Your task to perform on an android device: turn on improve location accuracy Image 0: 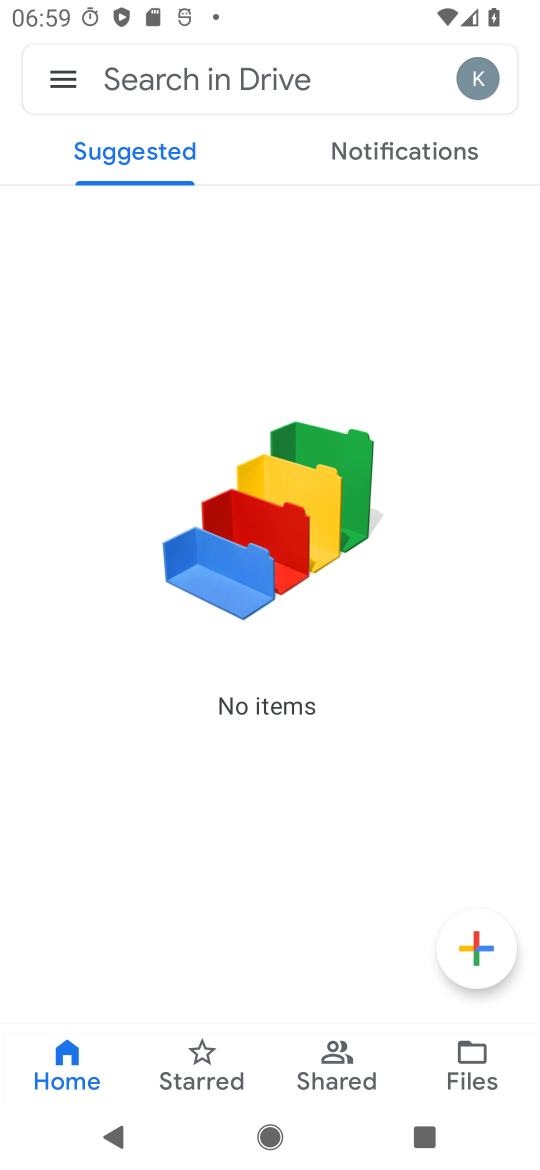
Step 0: press home button
Your task to perform on an android device: turn on improve location accuracy Image 1: 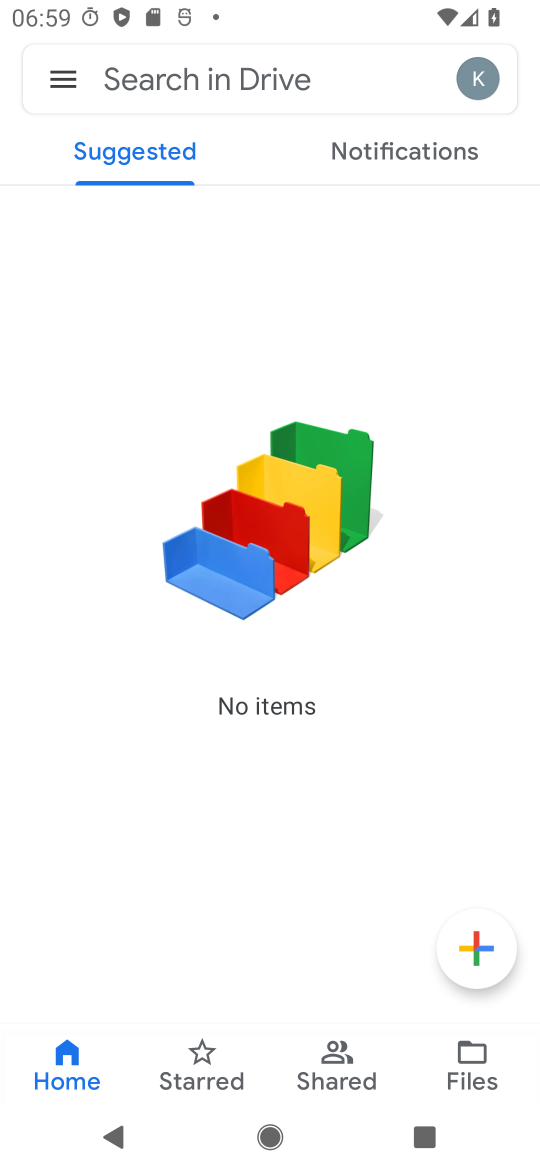
Step 1: press home button
Your task to perform on an android device: turn on improve location accuracy Image 2: 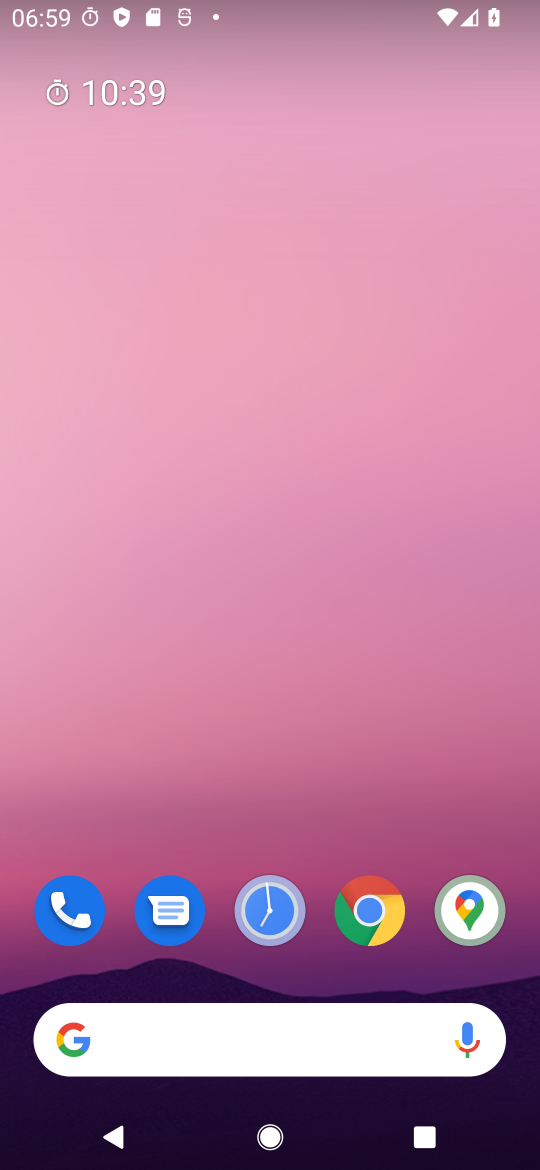
Step 2: drag from (291, 1024) to (283, 96)
Your task to perform on an android device: turn on improve location accuracy Image 3: 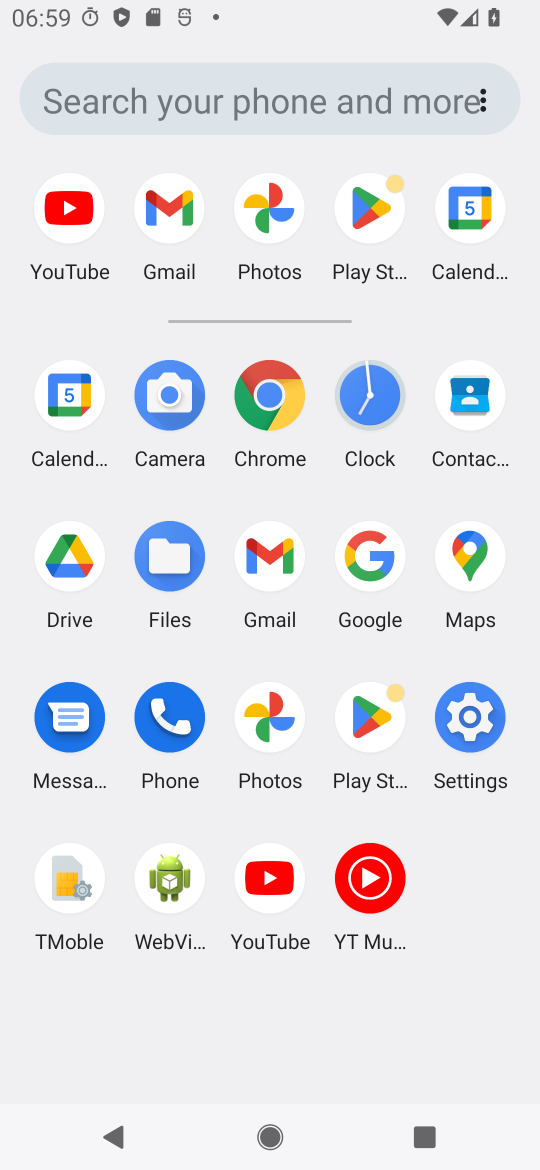
Step 3: click (469, 678)
Your task to perform on an android device: turn on improve location accuracy Image 4: 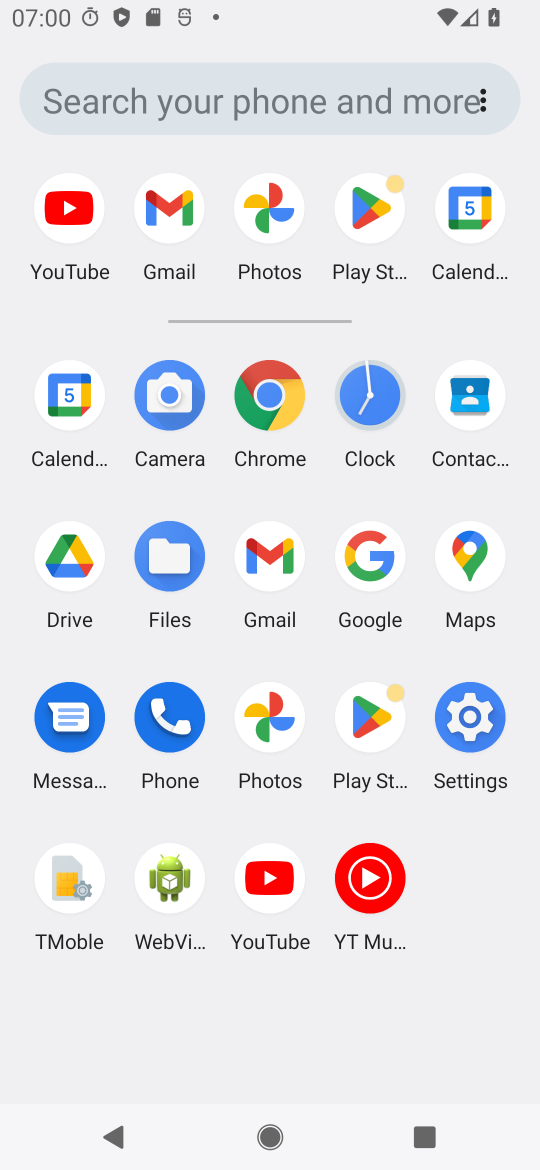
Step 4: click (467, 717)
Your task to perform on an android device: turn on improve location accuracy Image 5: 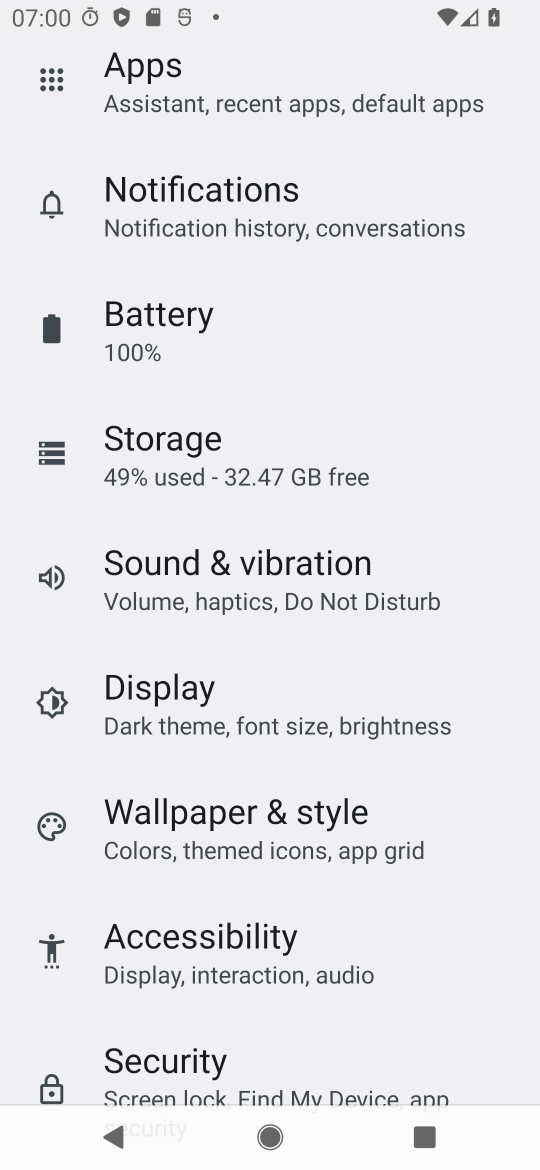
Step 5: drag from (224, 1119) to (250, 485)
Your task to perform on an android device: turn on improve location accuracy Image 6: 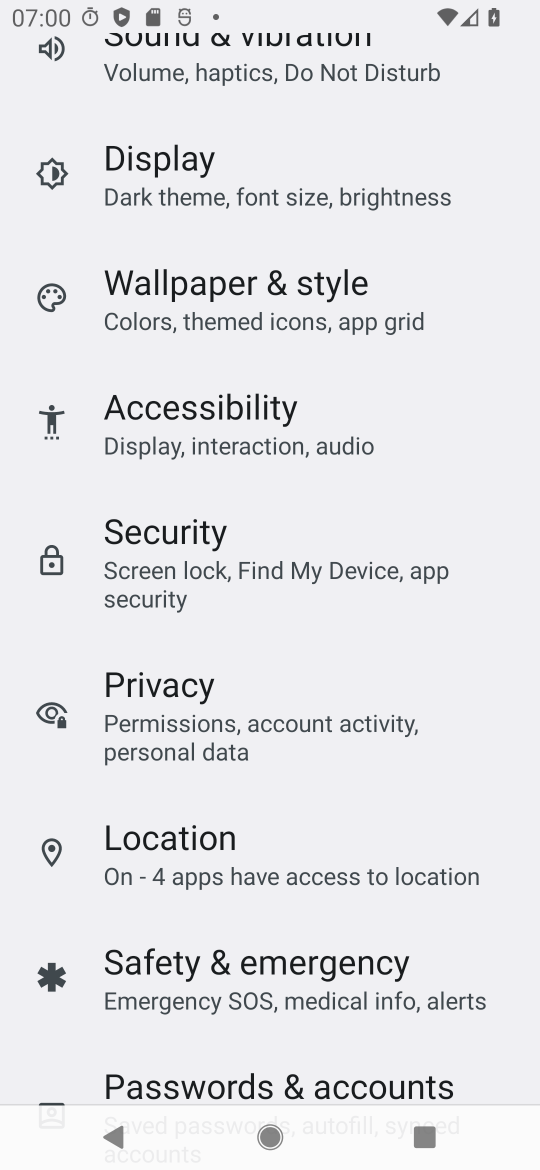
Step 6: click (205, 845)
Your task to perform on an android device: turn on improve location accuracy Image 7: 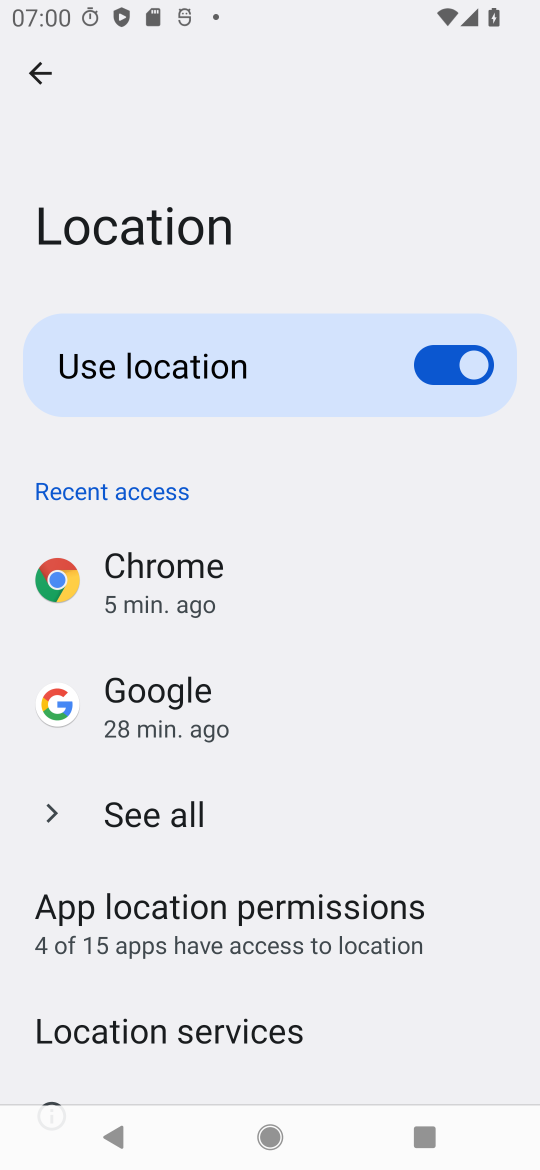
Step 7: drag from (335, 1073) to (322, 605)
Your task to perform on an android device: turn on improve location accuracy Image 8: 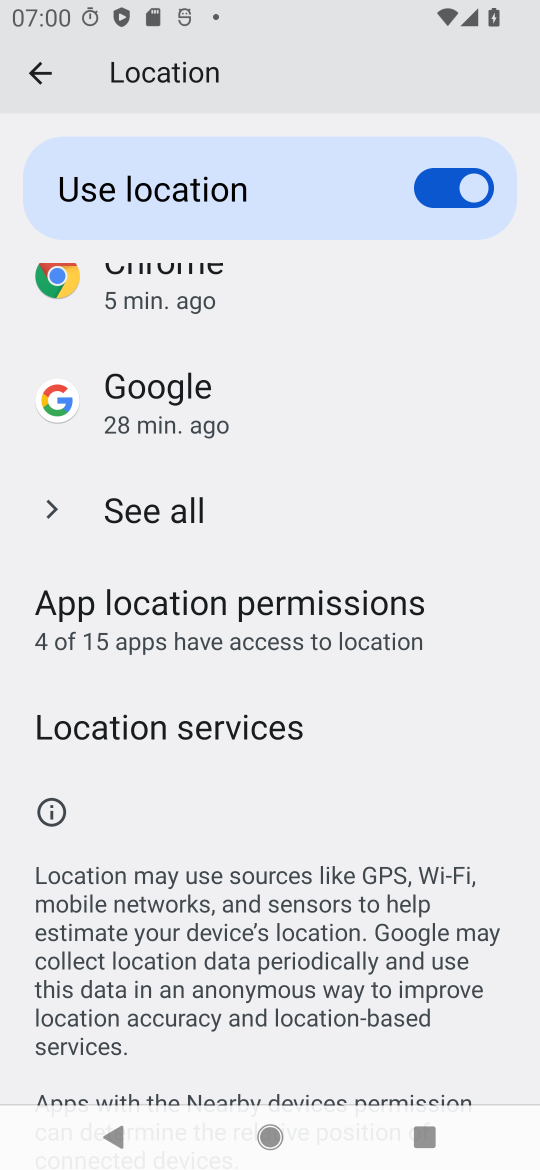
Step 8: click (245, 770)
Your task to perform on an android device: turn on improve location accuracy Image 9: 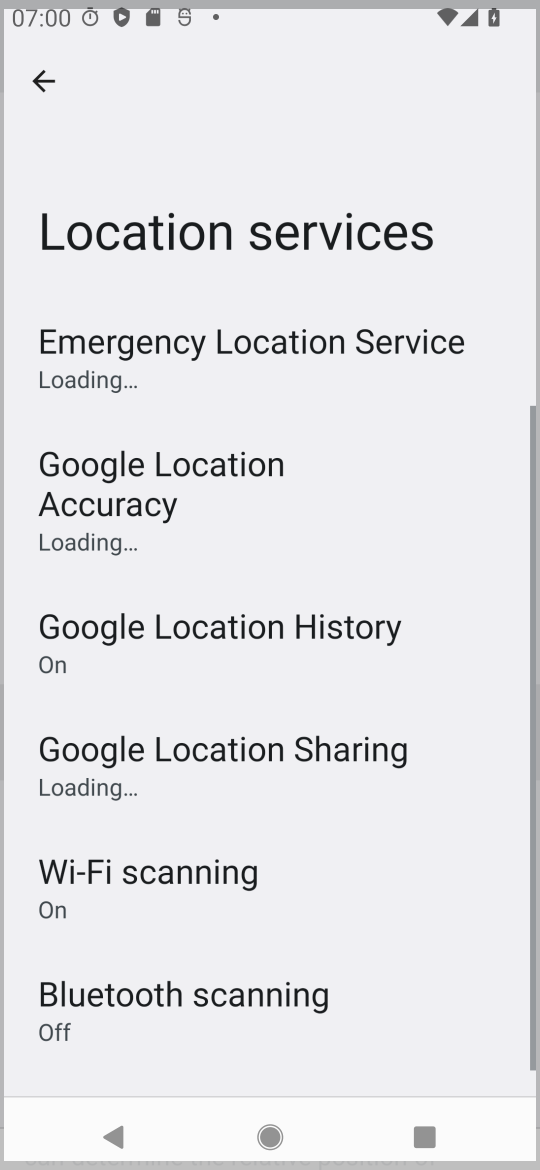
Step 9: click (245, 752)
Your task to perform on an android device: turn on improve location accuracy Image 10: 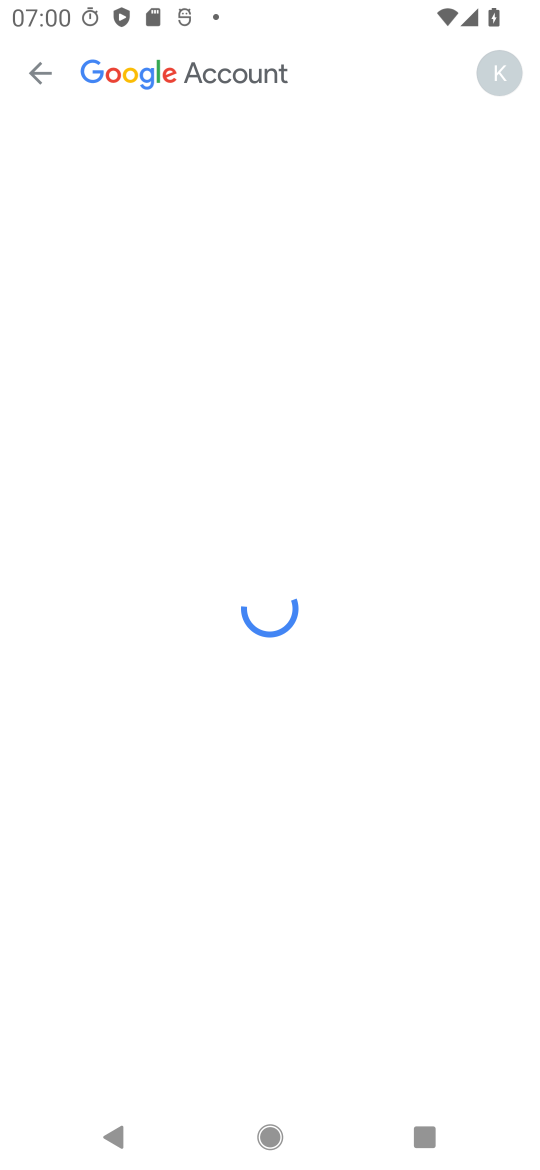
Step 10: press back button
Your task to perform on an android device: turn on improve location accuracy Image 11: 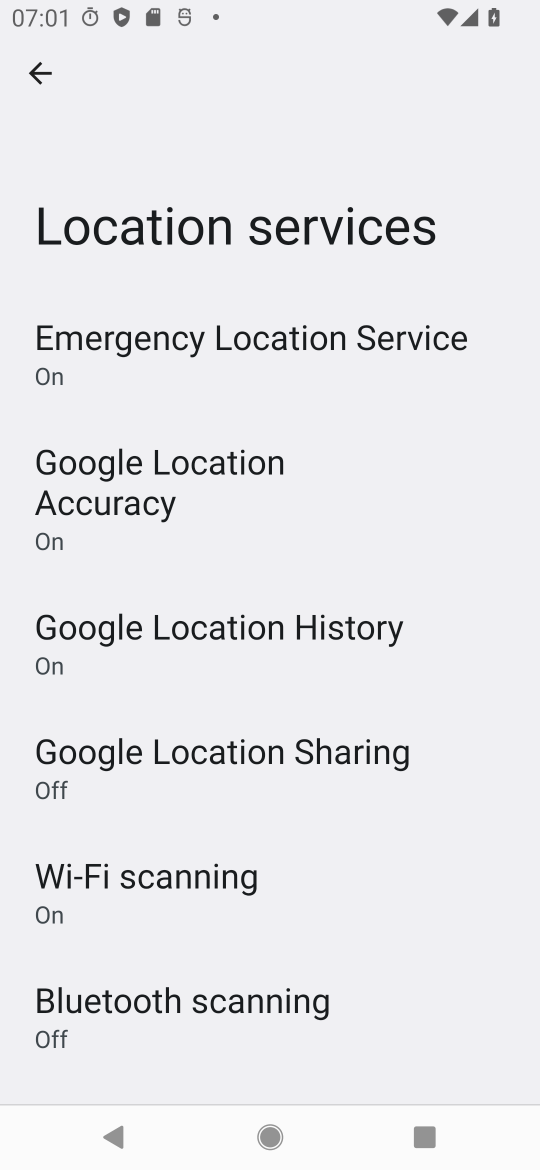
Step 11: click (166, 441)
Your task to perform on an android device: turn on improve location accuracy Image 12: 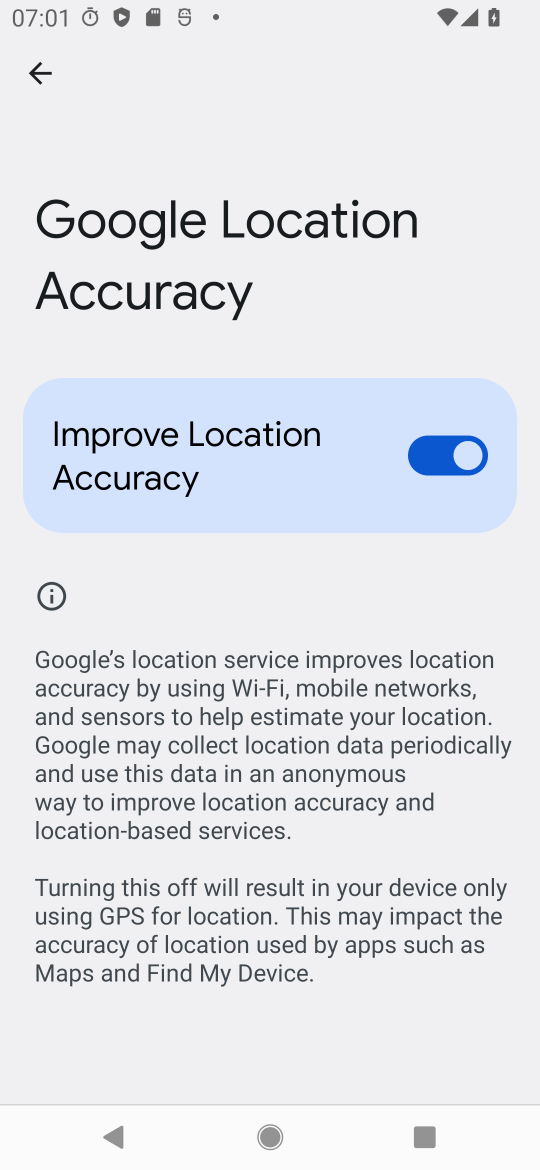
Step 12: task complete